Your task to perform on an android device: Open calendar and show me the third week of next month Image 0: 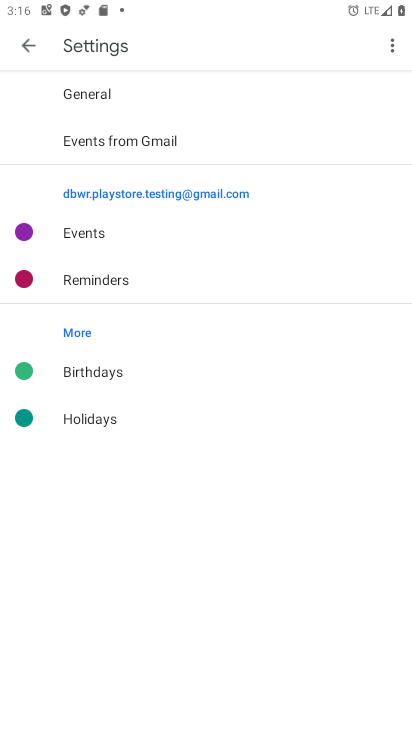
Step 0: press back button
Your task to perform on an android device: Open calendar and show me the third week of next month Image 1: 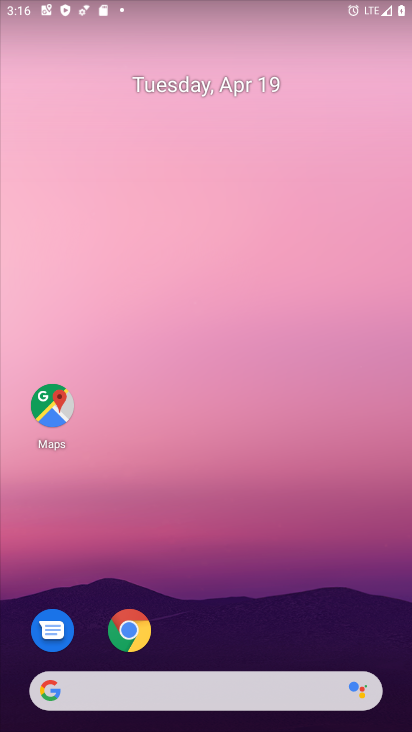
Step 1: drag from (208, 728) to (206, 34)
Your task to perform on an android device: Open calendar and show me the third week of next month Image 2: 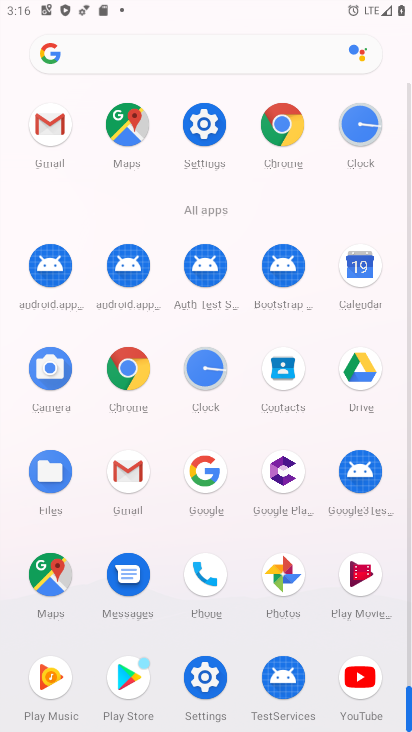
Step 2: click (360, 264)
Your task to perform on an android device: Open calendar and show me the third week of next month Image 3: 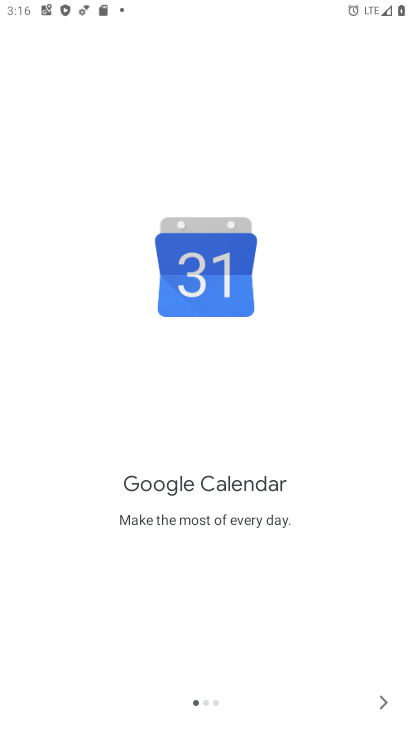
Step 3: click (382, 700)
Your task to perform on an android device: Open calendar and show me the third week of next month Image 4: 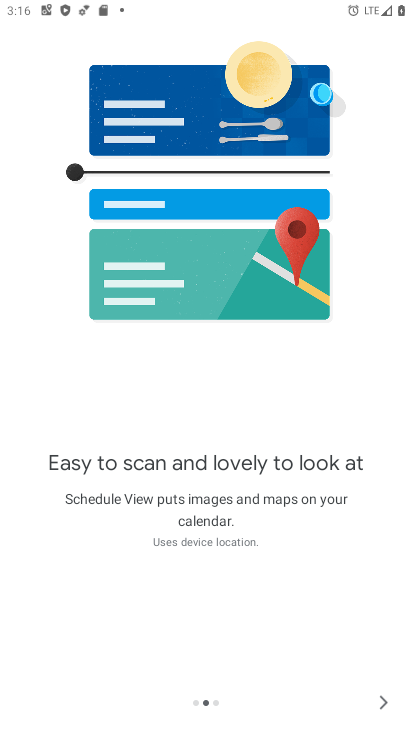
Step 4: click (385, 705)
Your task to perform on an android device: Open calendar and show me the third week of next month Image 5: 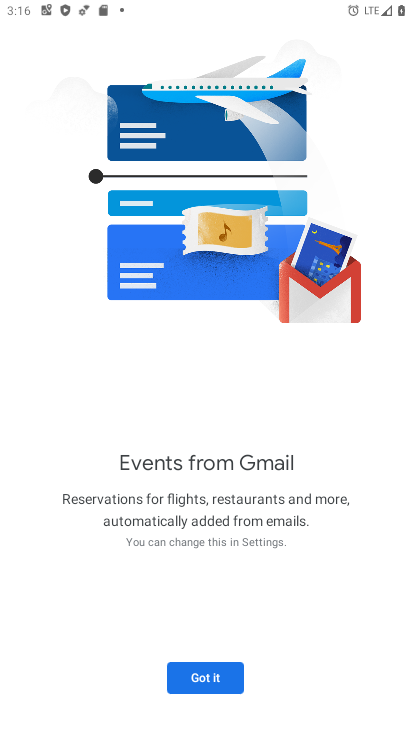
Step 5: click (210, 678)
Your task to perform on an android device: Open calendar and show me the third week of next month Image 6: 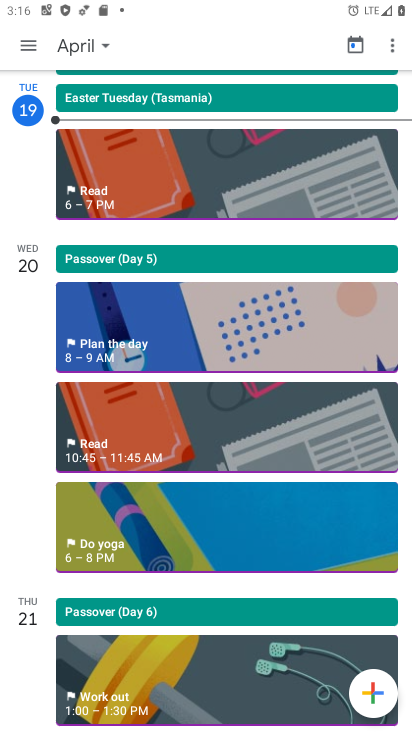
Step 6: click (72, 42)
Your task to perform on an android device: Open calendar and show me the third week of next month Image 7: 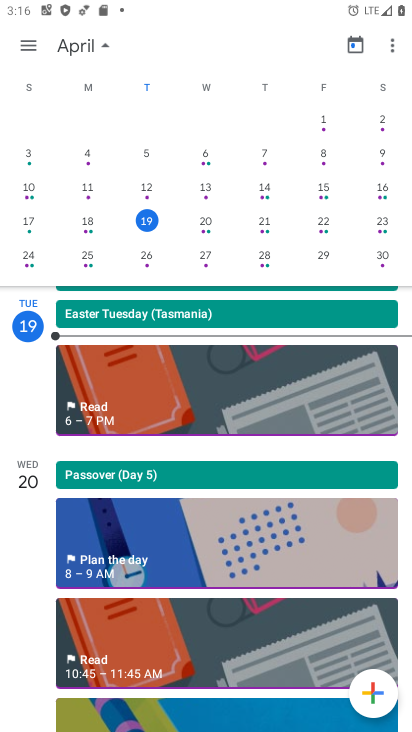
Step 7: drag from (352, 235) to (24, 199)
Your task to perform on an android device: Open calendar and show me the third week of next month Image 8: 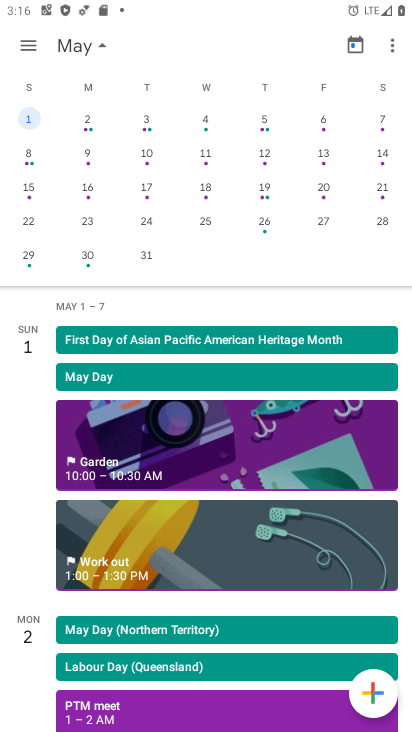
Step 8: click (85, 181)
Your task to perform on an android device: Open calendar and show me the third week of next month Image 9: 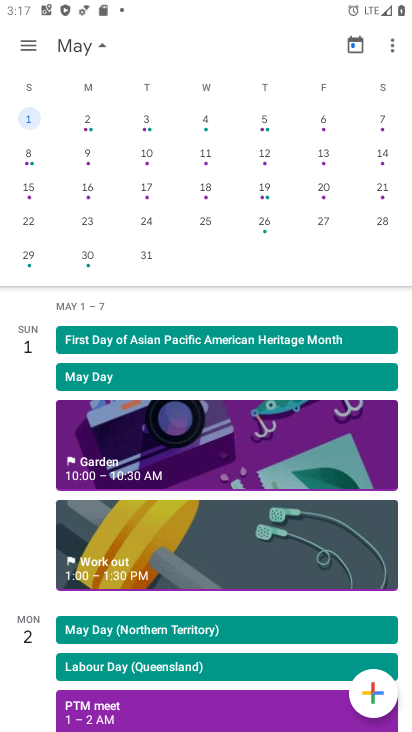
Step 9: click (88, 178)
Your task to perform on an android device: Open calendar and show me the third week of next month Image 10: 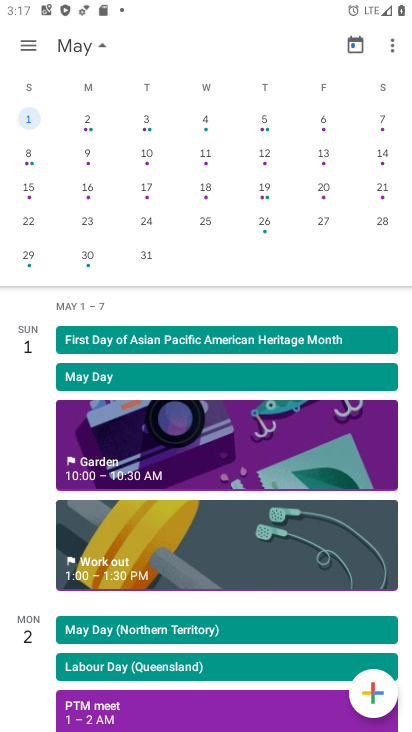
Step 10: click (87, 188)
Your task to perform on an android device: Open calendar and show me the third week of next month Image 11: 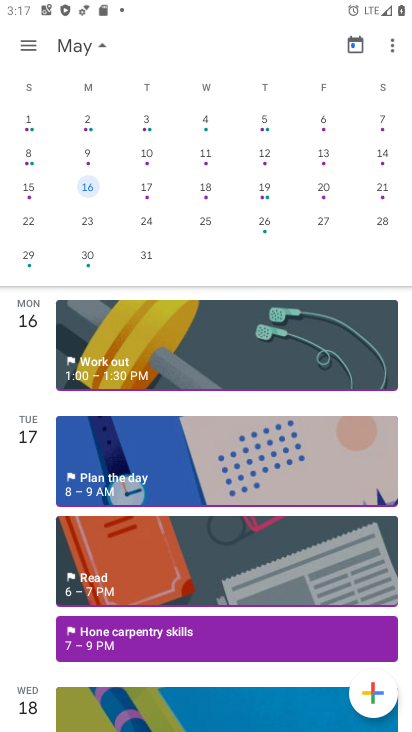
Step 11: task complete